Your task to perform on an android device: turn off sleep mode Image 0: 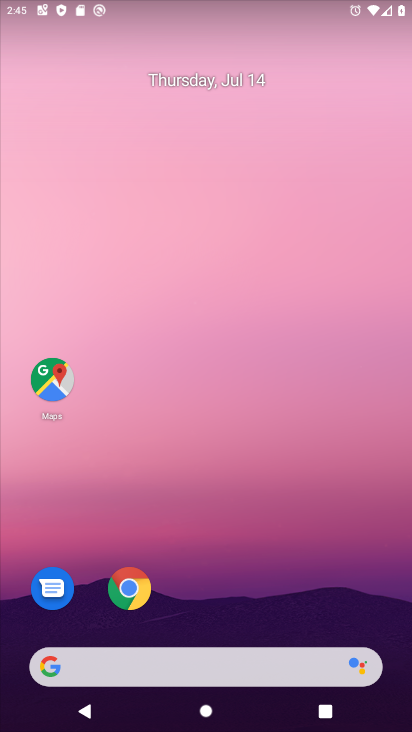
Step 0: click (243, 164)
Your task to perform on an android device: turn off sleep mode Image 1: 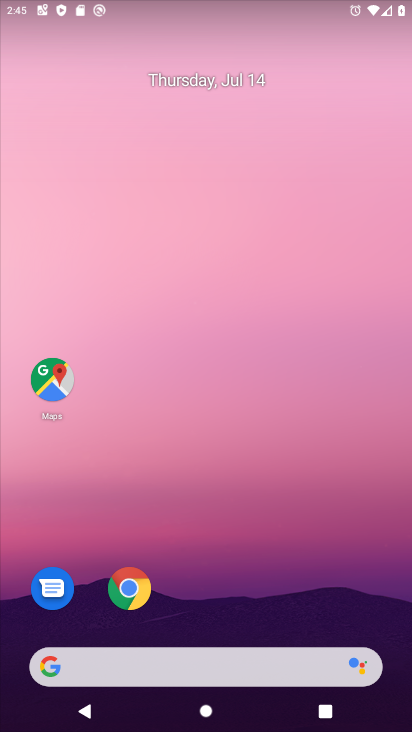
Step 1: drag from (255, 612) to (273, 147)
Your task to perform on an android device: turn off sleep mode Image 2: 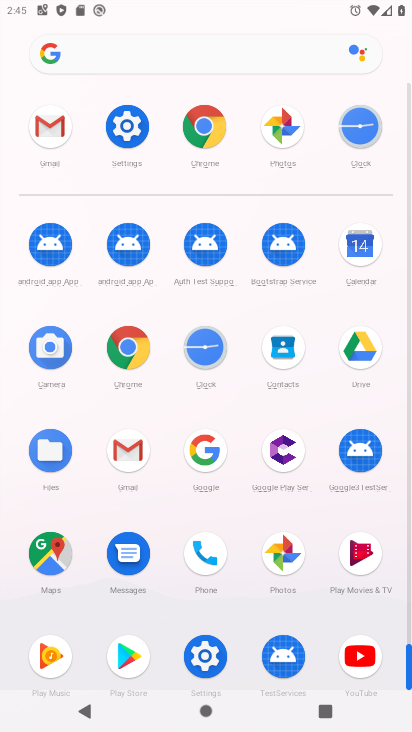
Step 2: click (133, 118)
Your task to perform on an android device: turn off sleep mode Image 3: 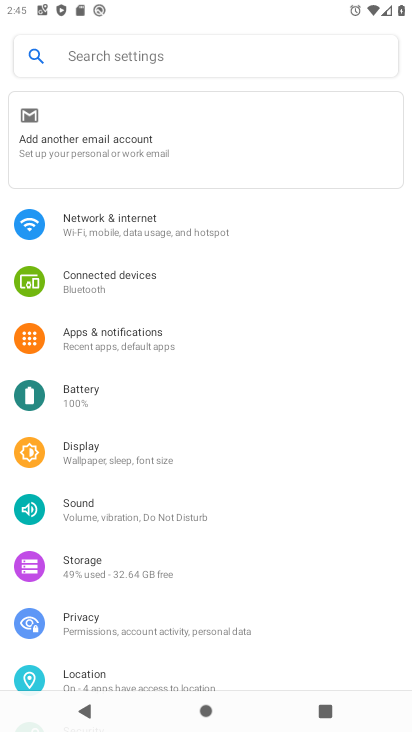
Step 3: task complete